Your task to perform on an android device: Go to Google maps Image 0: 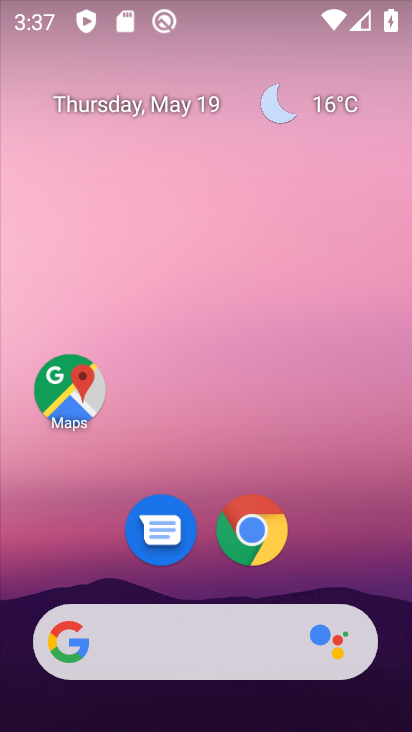
Step 0: click (81, 393)
Your task to perform on an android device: Go to Google maps Image 1: 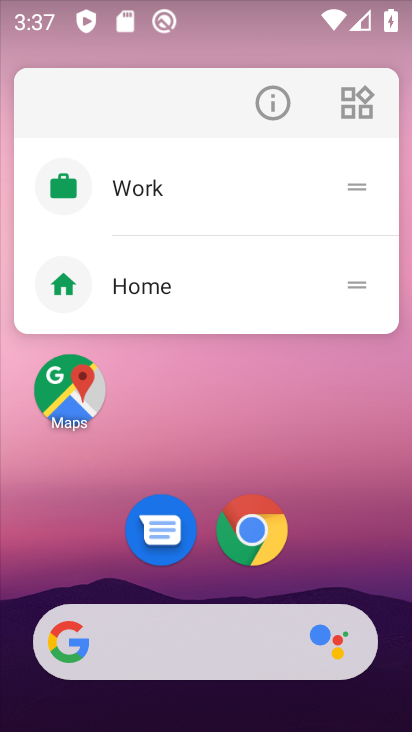
Step 1: click (81, 393)
Your task to perform on an android device: Go to Google maps Image 2: 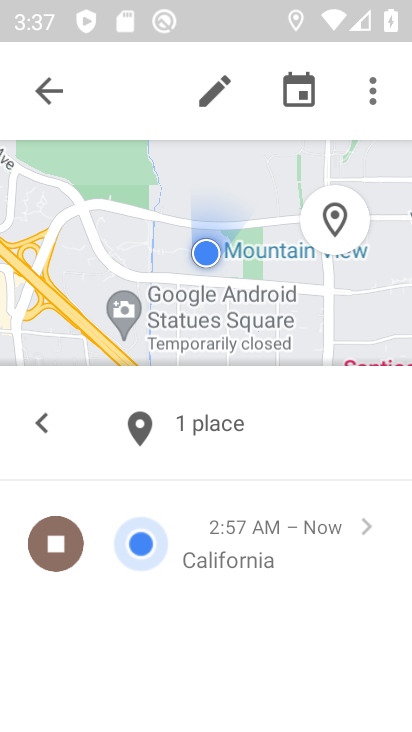
Step 2: task complete